Your task to perform on an android device: Go to battery settings Image 0: 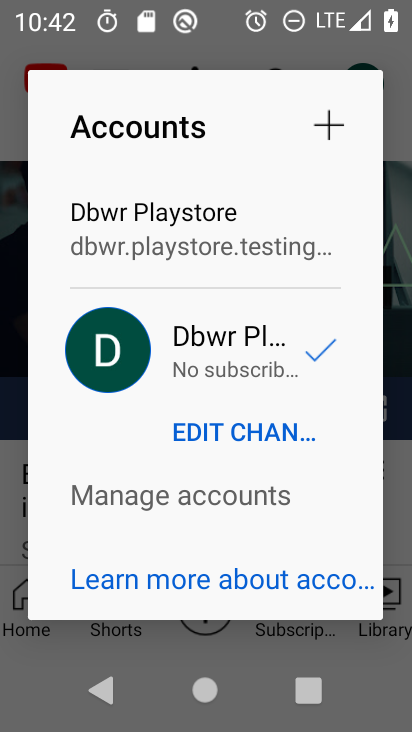
Step 0: press home button
Your task to perform on an android device: Go to battery settings Image 1: 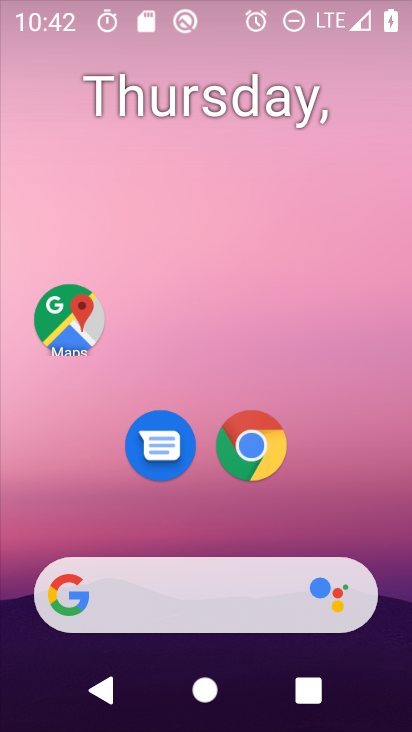
Step 1: drag from (217, 557) to (193, 145)
Your task to perform on an android device: Go to battery settings Image 2: 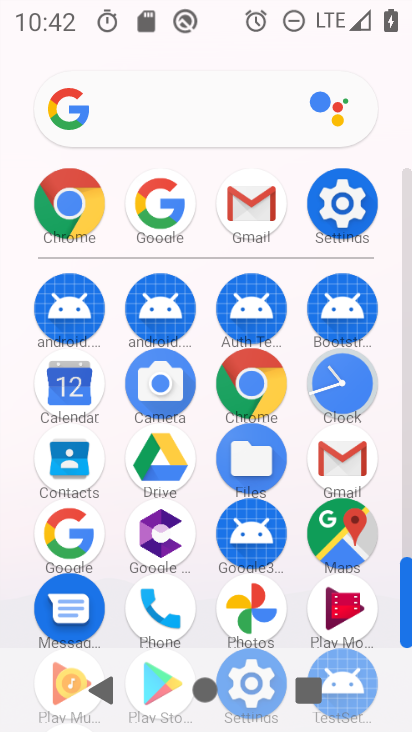
Step 2: click (329, 211)
Your task to perform on an android device: Go to battery settings Image 3: 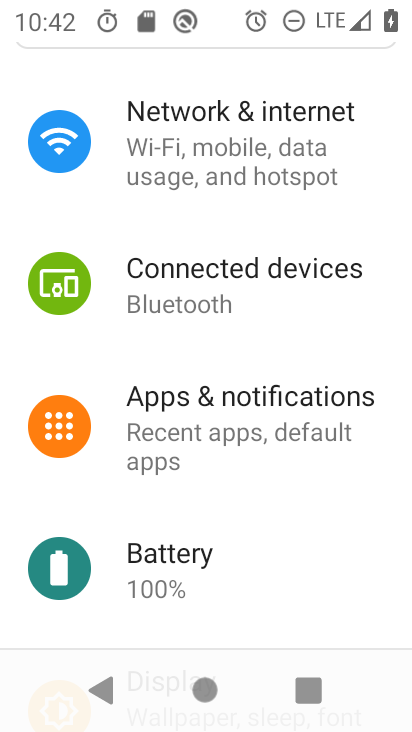
Step 3: click (190, 546)
Your task to perform on an android device: Go to battery settings Image 4: 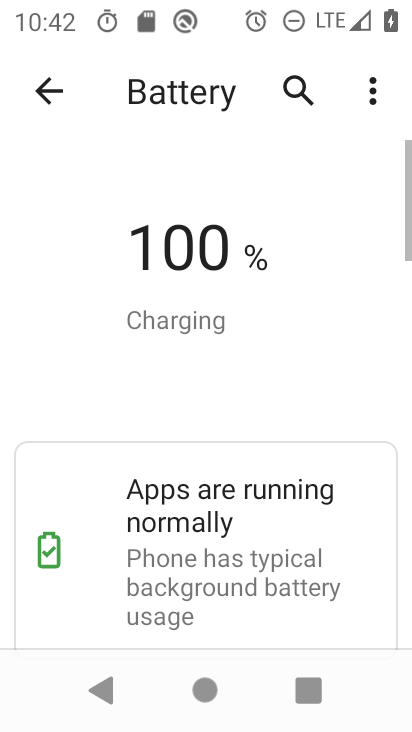
Step 4: task complete